Your task to perform on an android device: Go to display settings Image 0: 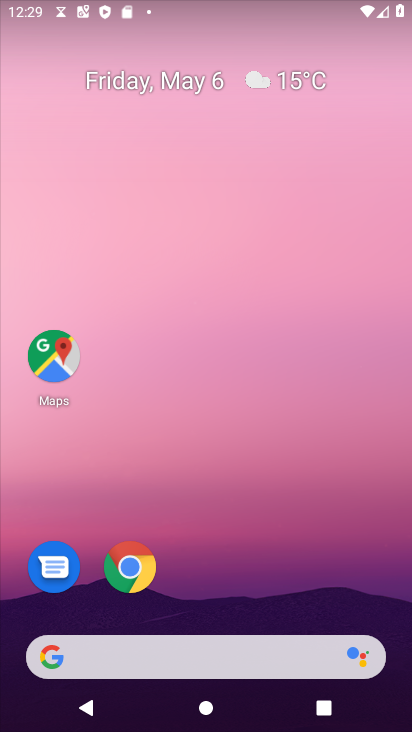
Step 0: drag from (309, 544) to (273, 84)
Your task to perform on an android device: Go to display settings Image 1: 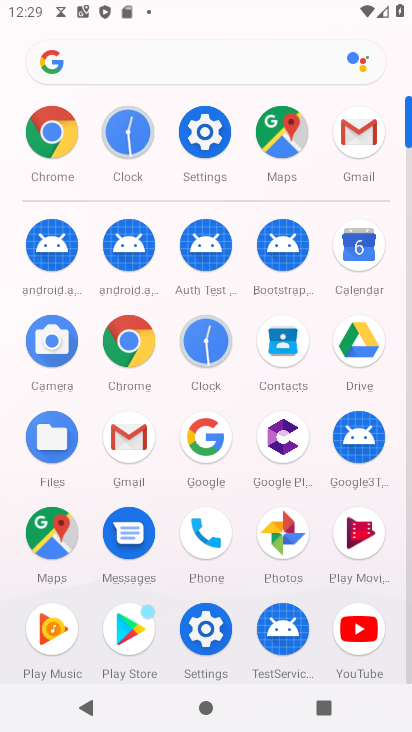
Step 1: click (198, 134)
Your task to perform on an android device: Go to display settings Image 2: 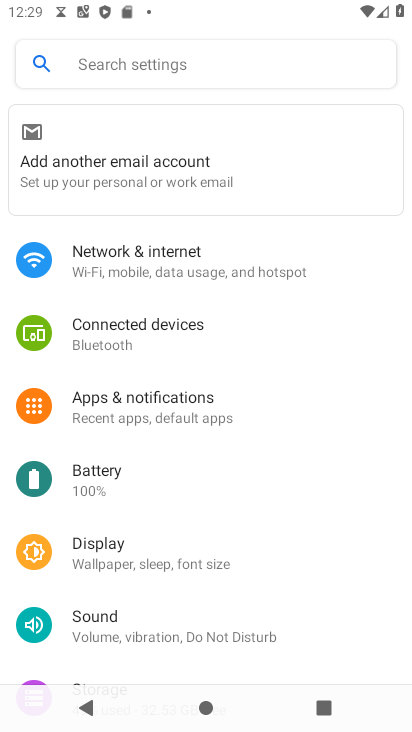
Step 2: click (151, 547)
Your task to perform on an android device: Go to display settings Image 3: 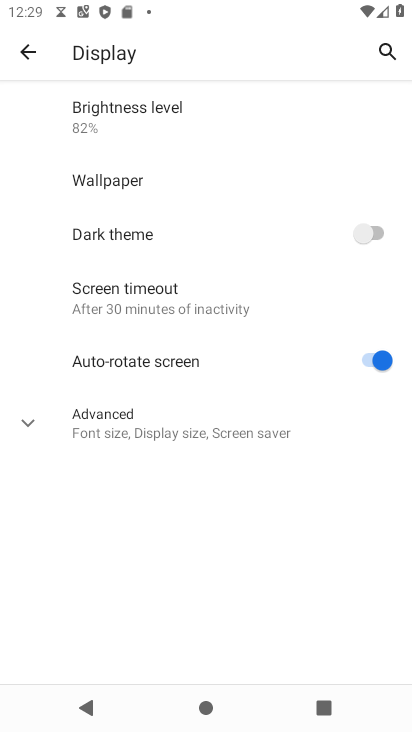
Step 3: click (129, 302)
Your task to perform on an android device: Go to display settings Image 4: 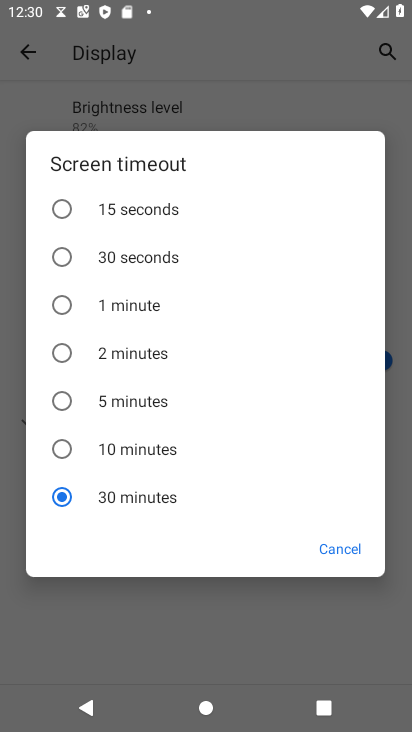
Step 4: click (80, 354)
Your task to perform on an android device: Go to display settings Image 5: 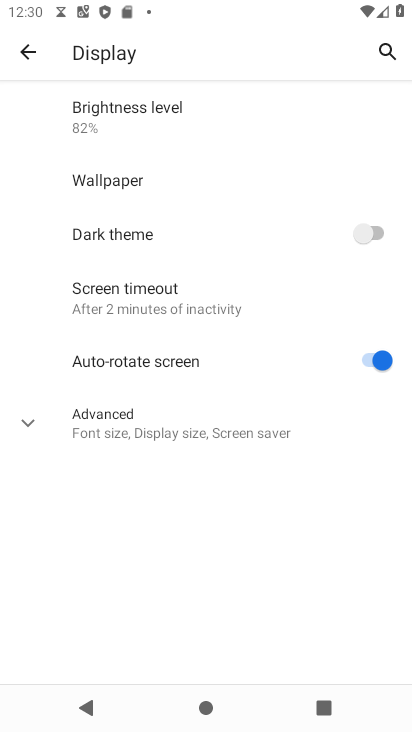
Step 5: task complete